Your task to perform on an android device: Show the shopping cart on target. Add "razer thresher" to the cart on target Image 0: 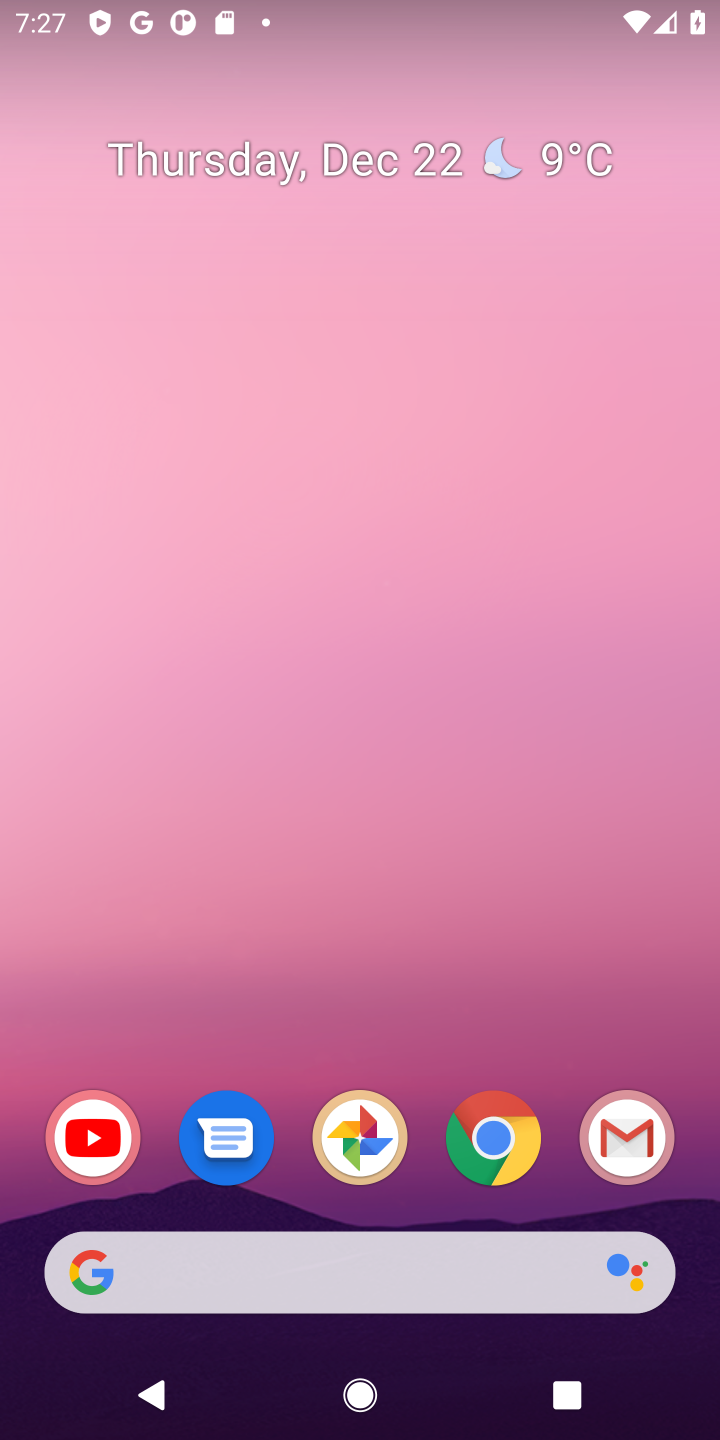
Step 0: click (467, 1136)
Your task to perform on an android device: Show the shopping cart on target. Add "razer thresher" to the cart on target Image 1: 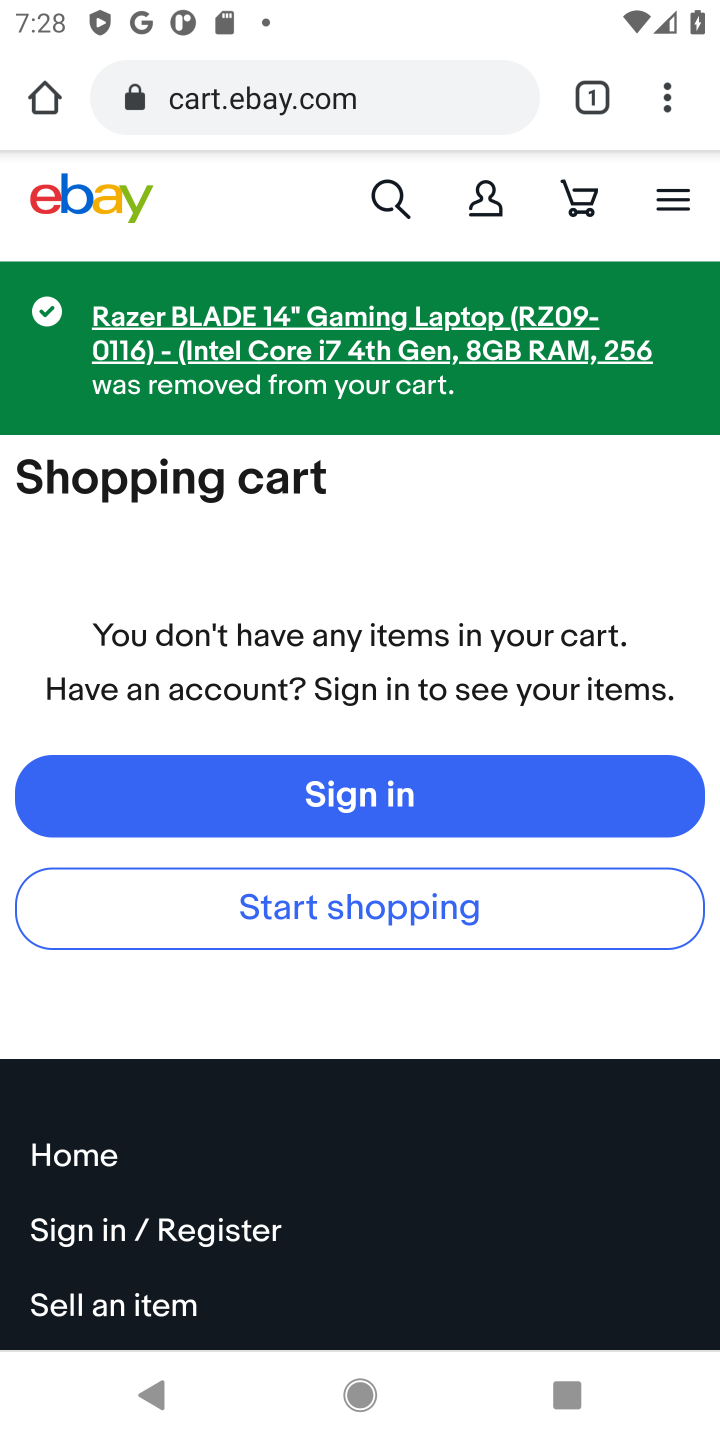
Step 1: click (41, 81)
Your task to perform on an android device: Show the shopping cart on target. Add "razer thresher" to the cart on target Image 2: 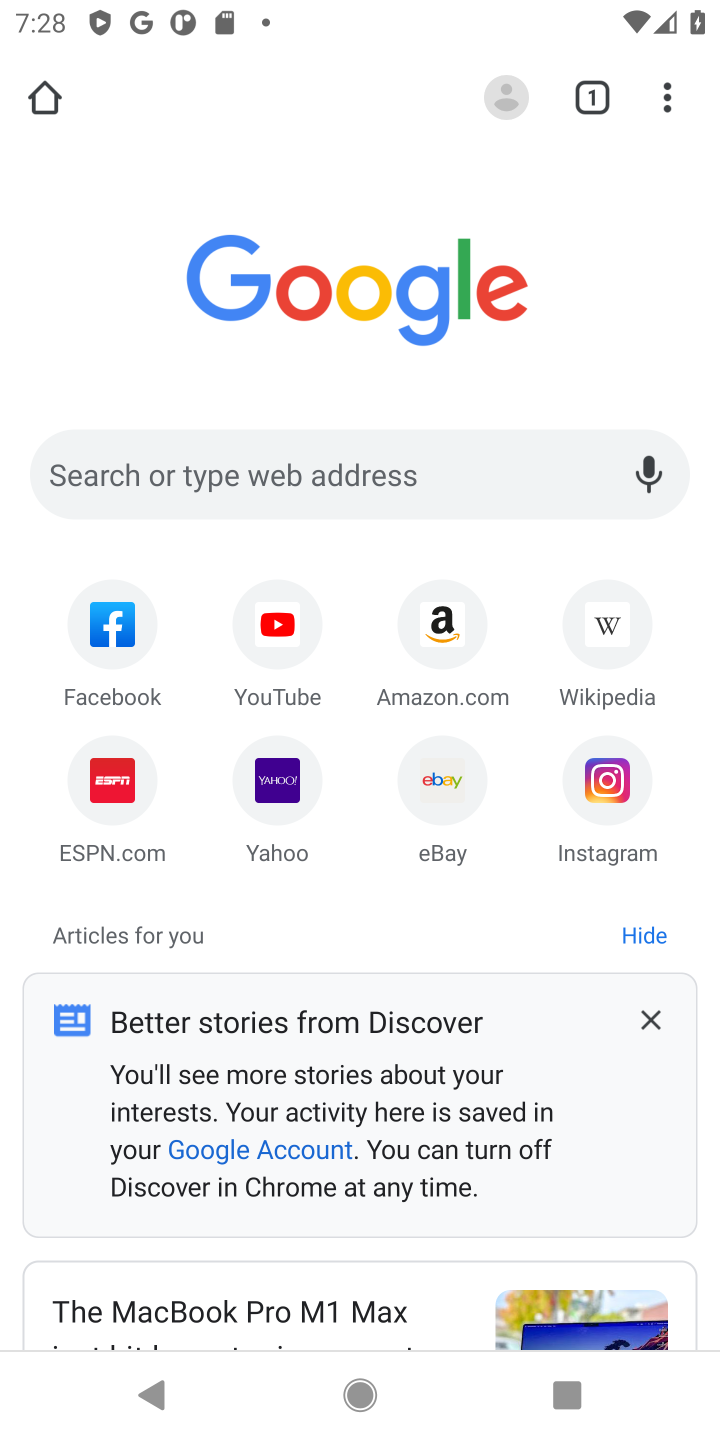
Step 2: click (430, 476)
Your task to perform on an android device: Show the shopping cart on target. Add "razer thresher" to the cart on target Image 3: 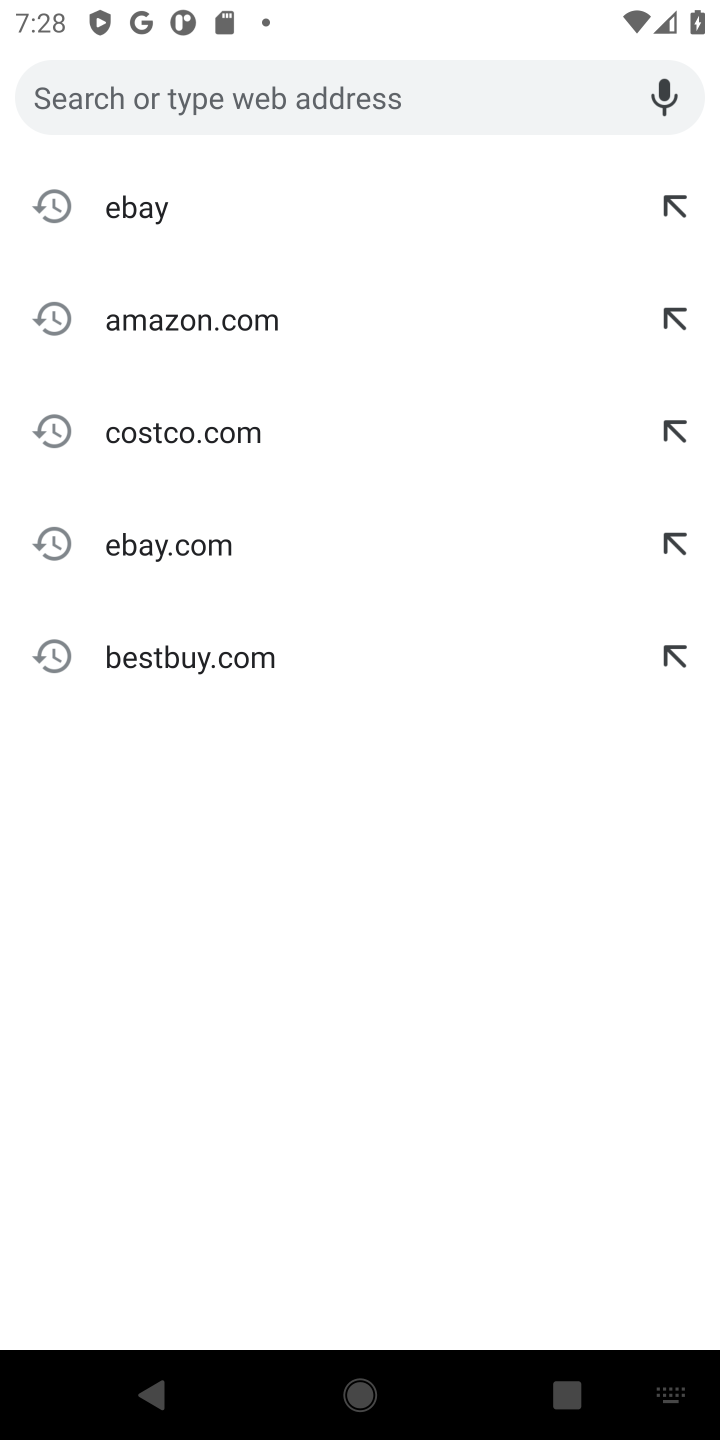
Step 3: type "target"
Your task to perform on an android device: Show the shopping cart on target. Add "razer thresher" to the cart on target Image 4: 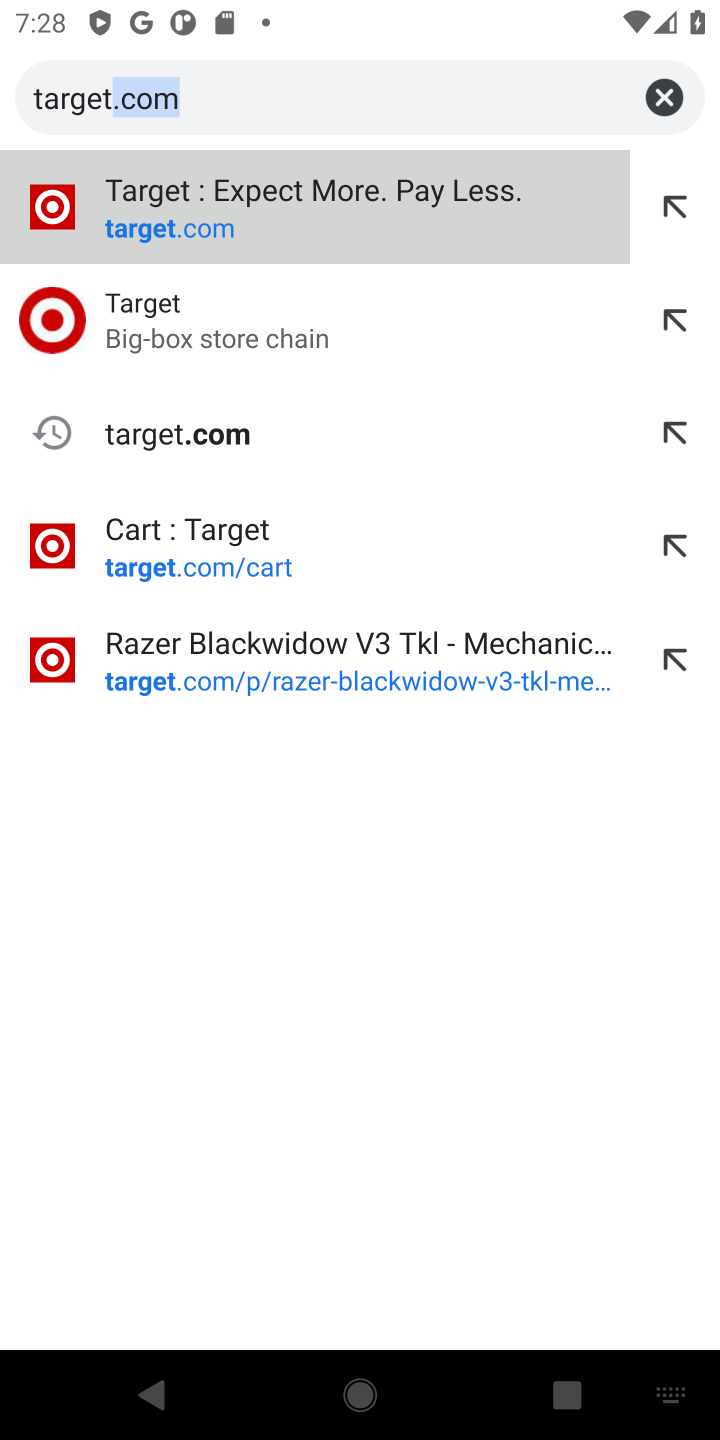
Step 4: click (554, 84)
Your task to perform on an android device: Show the shopping cart on target. Add "razer thresher" to the cart on target Image 5: 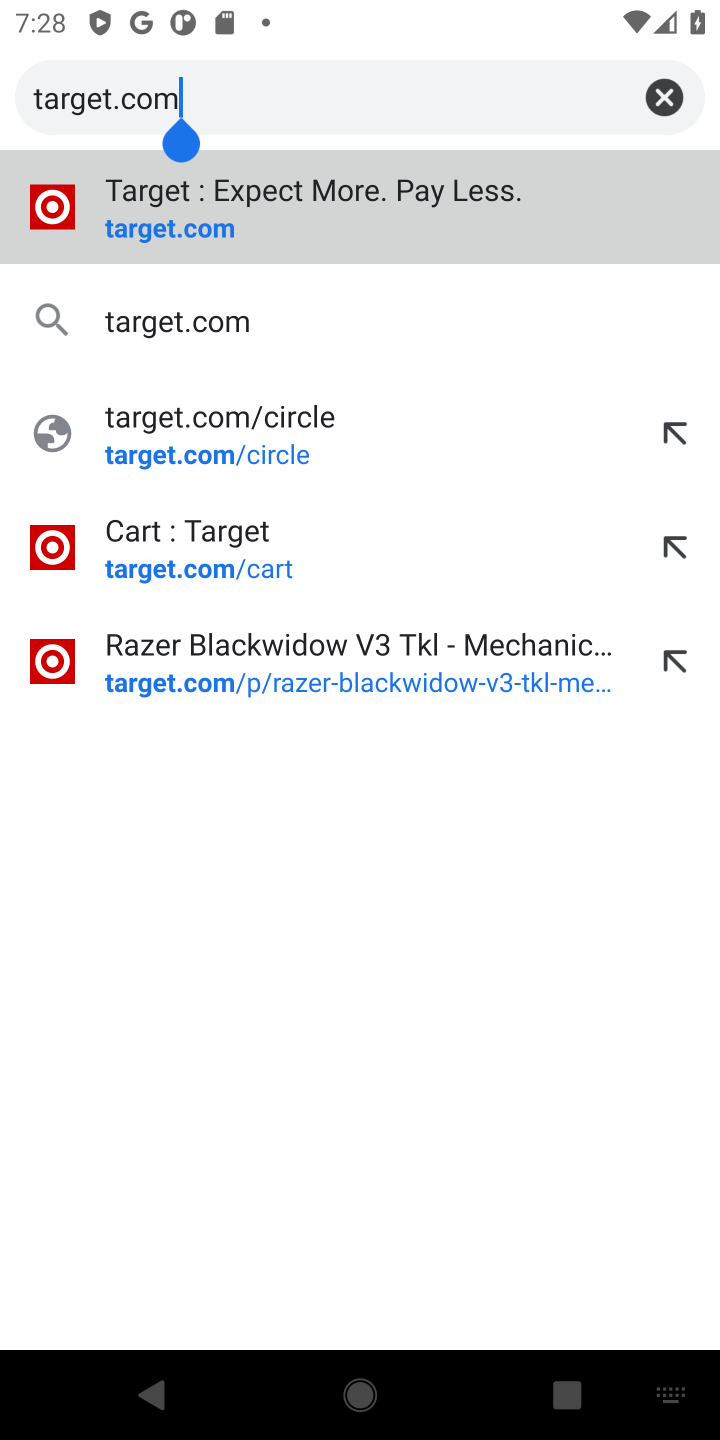
Step 5: click (213, 325)
Your task to perform on an android device: Show the shopping cart on target. Add "razer thresher" to the cart on target Image 6: 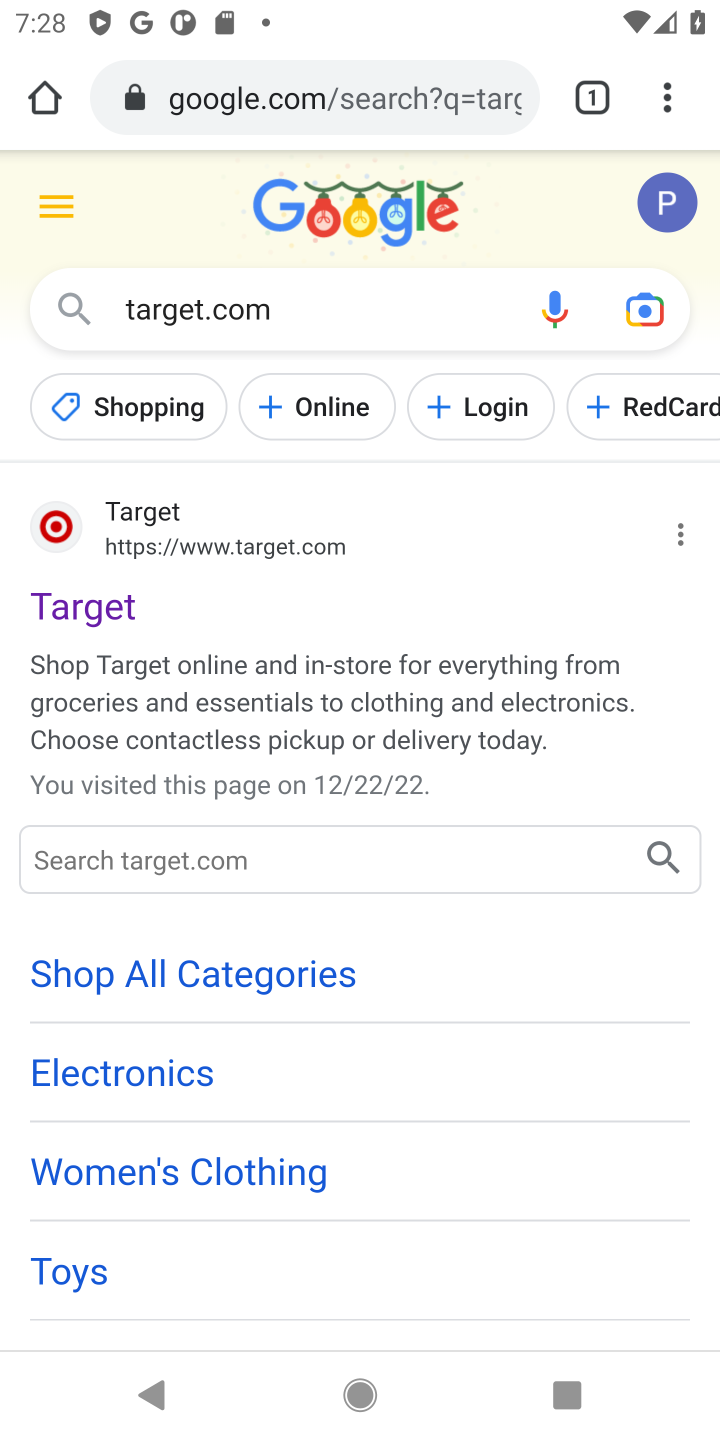
Step 6: click (188, 537)
Your task to perform on an android device: Show the shopping cart on target. Add "razer thresher" to the cart on target Image 7: 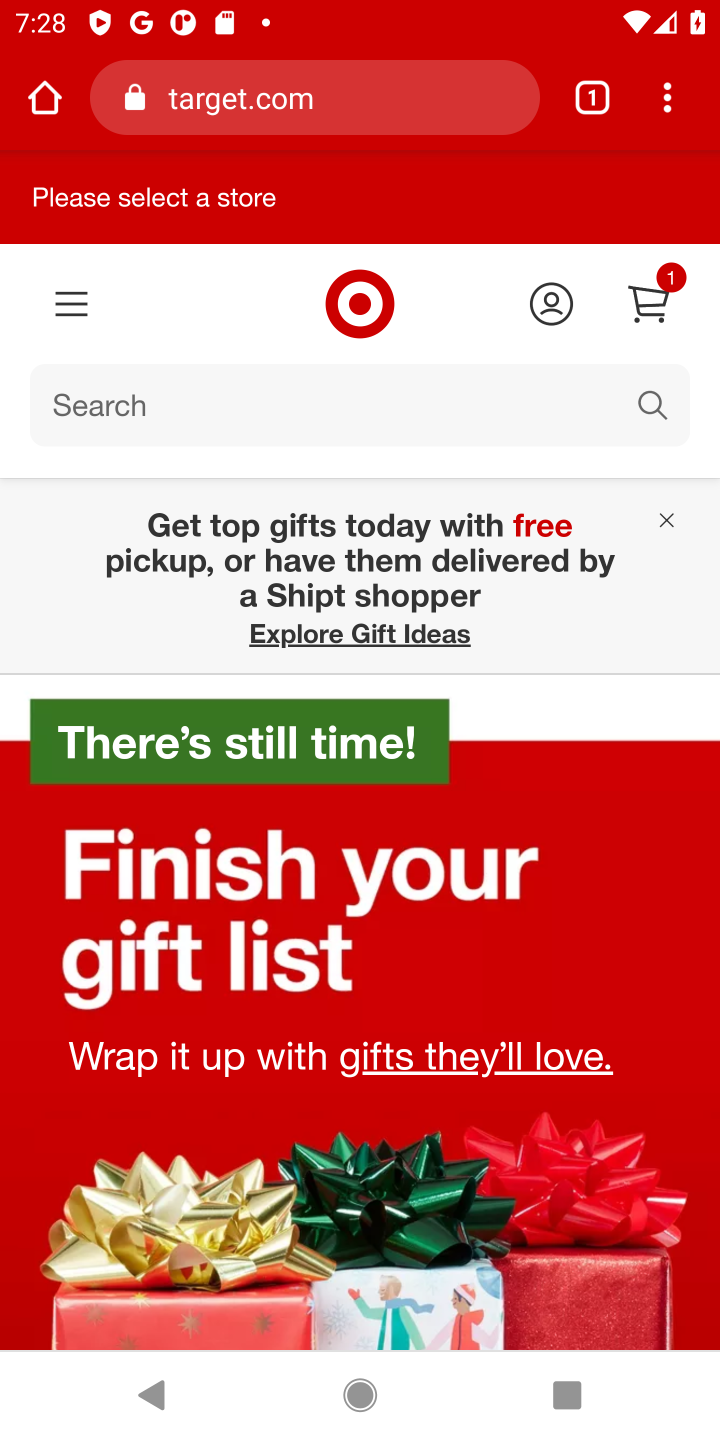
Step 7: click (632, 405)
Your task to perform on an android device: Show the shopping cart on target. Add "razer thresher" to the cart on target Image 8: 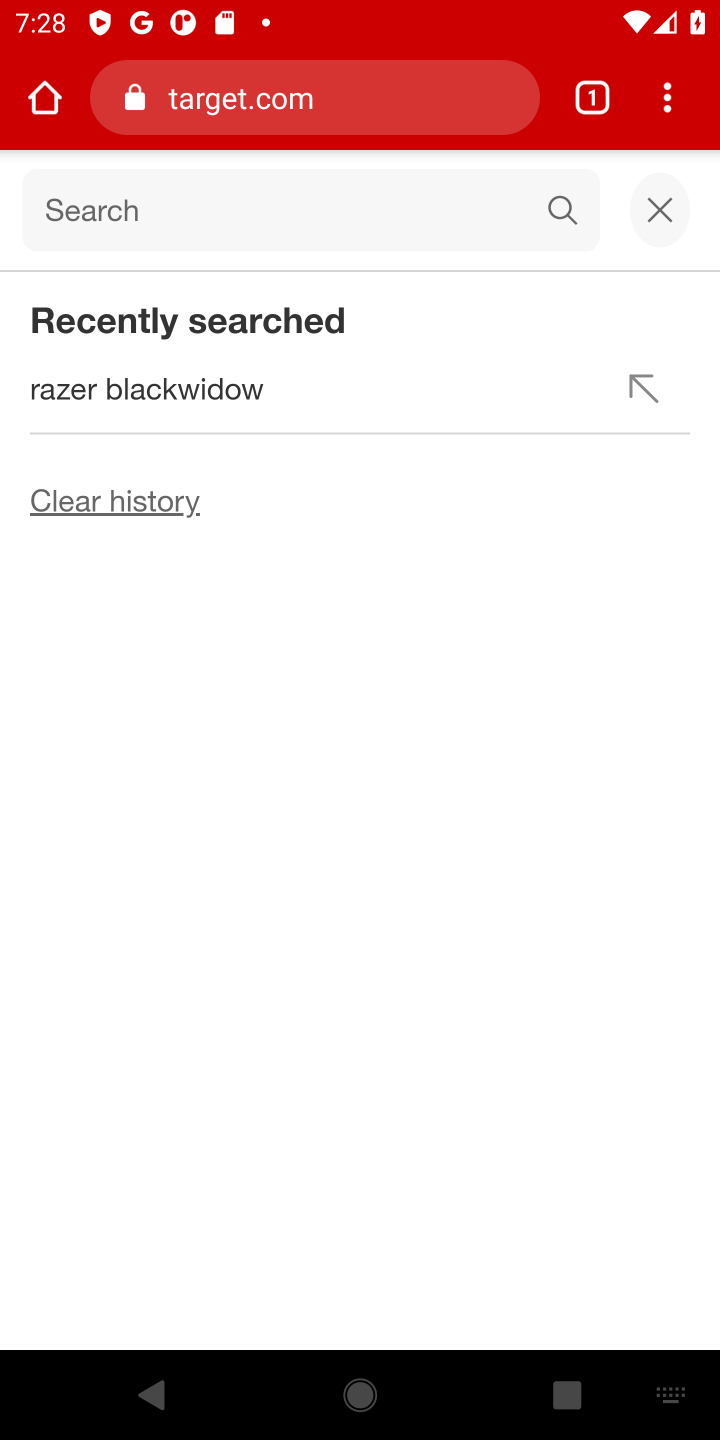
Step 8: type "razer thresher"
Your task to perform on an android device: Show the shopping cart on target. Add "razer thresher" to the cart on target Image 9: 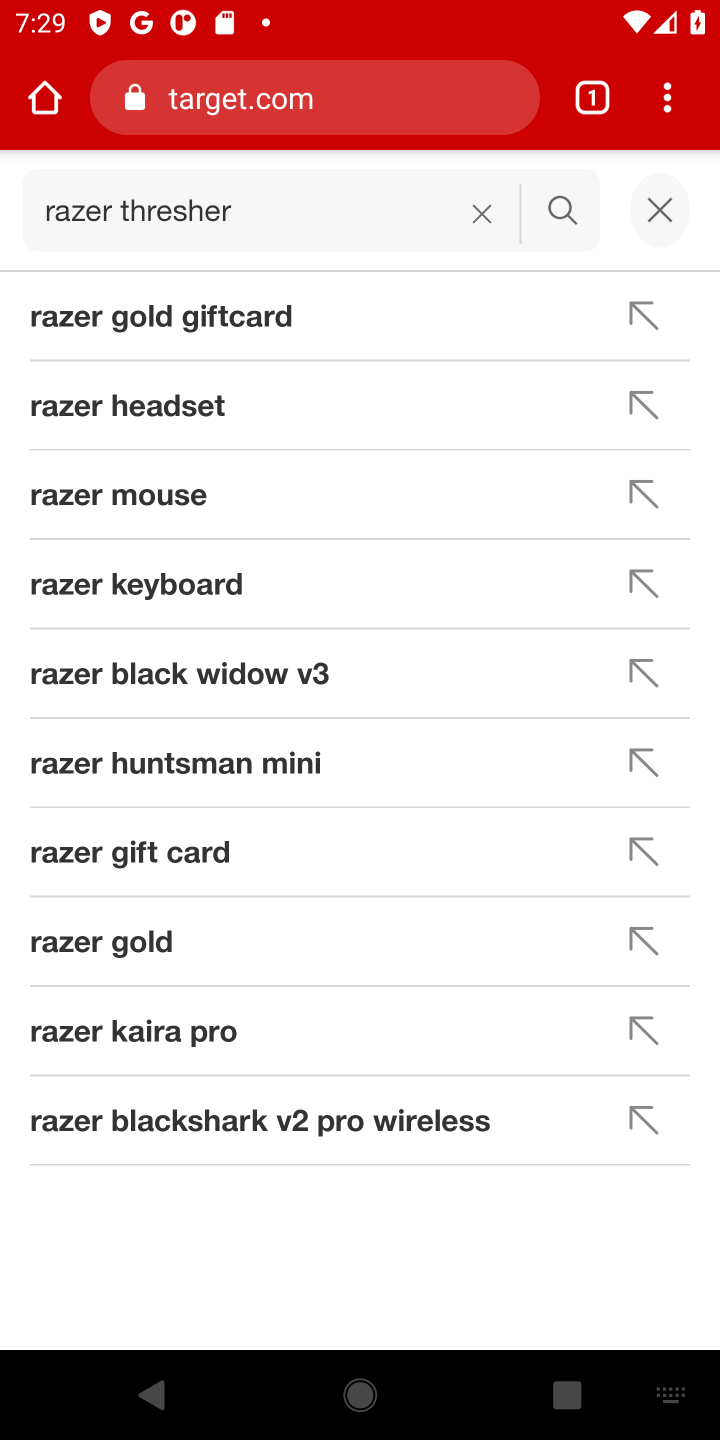
Step 9: click (566, 212)
Your task to perform on an android device: Show the shopping cart on target. Add "razer thresher" to the cart on target Image 10: 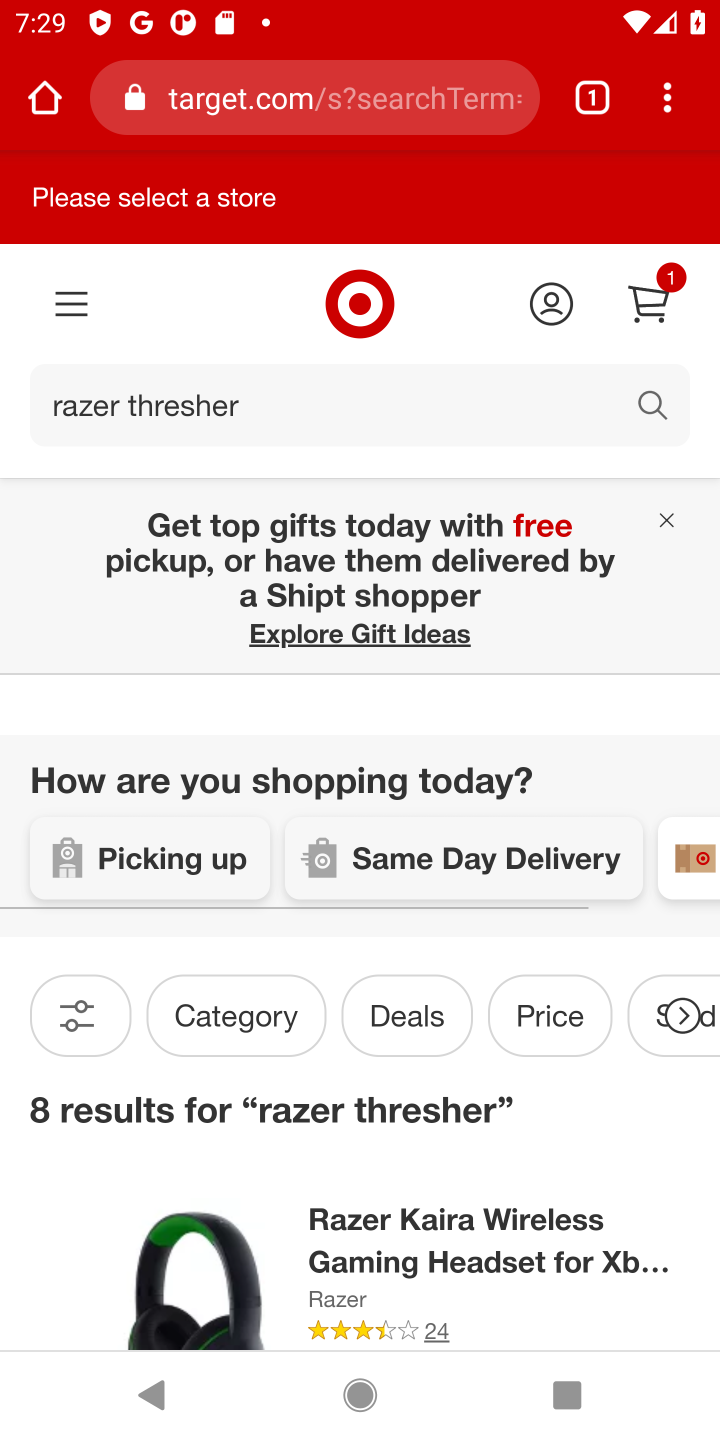
Step 10: task complete